Your task to perform on an android device: turn off javascript in the chrome app Image 0: 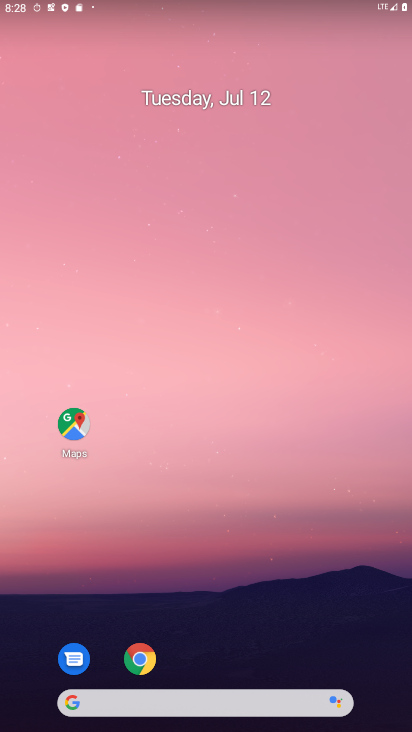
Step 0: drag from (362, 660) to (303, 26)
Your task to perform on an android device: turn off javascript in the chrome app Image 1: 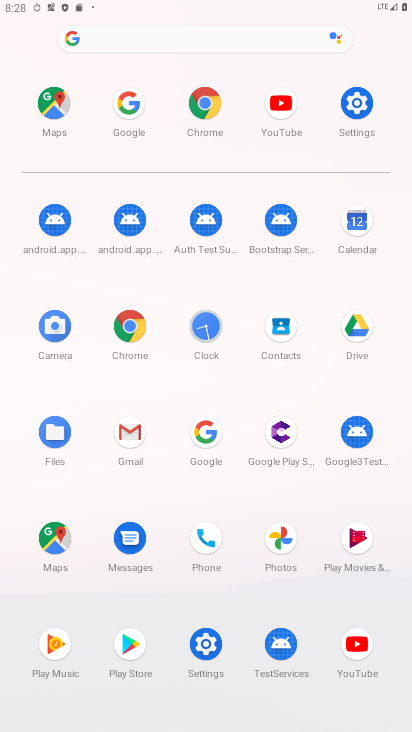
Step 1: click (209, 105)
Your task to perform on an android device: turn off javascript in the chrome app Image 2: 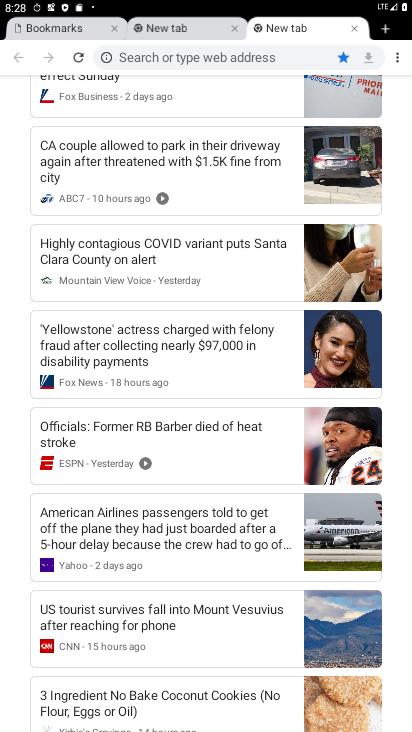
Step 2: click (399, 60)
Your task to perform on an android device: turn off javascript in the chrome app Image 3: 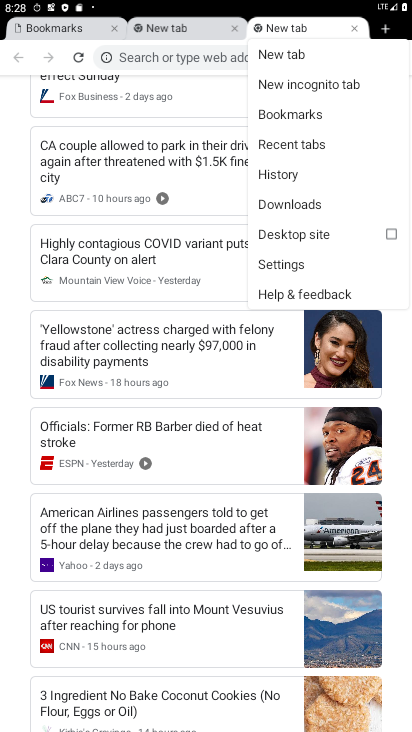
Step 3: click (284, 259)
Your task to perform on an android device: turn off javascript in the chrome app Image 4: 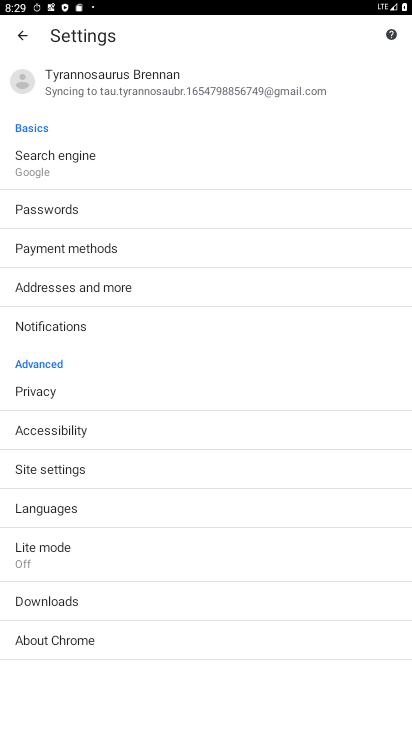
Step 4: click (78, 468)
Your task to perform on an android device: turn off javascript in the chrome app Image 5: 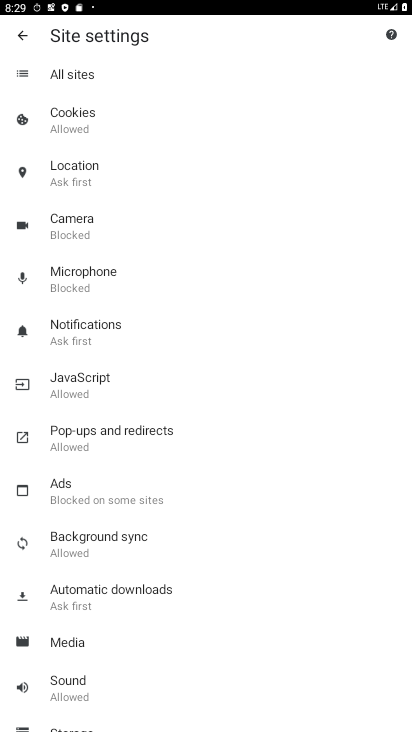
Step 5: click (77, 376)
Your task to perform on an android device: turn off javascript in the chrome app Image 6: 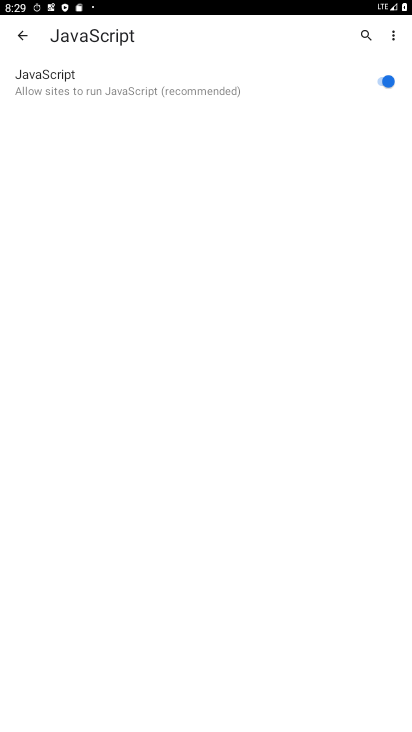
Step 6: click (381, 86)
Your task to perform on an android device: turn off javascript in the chrome app Image 7: 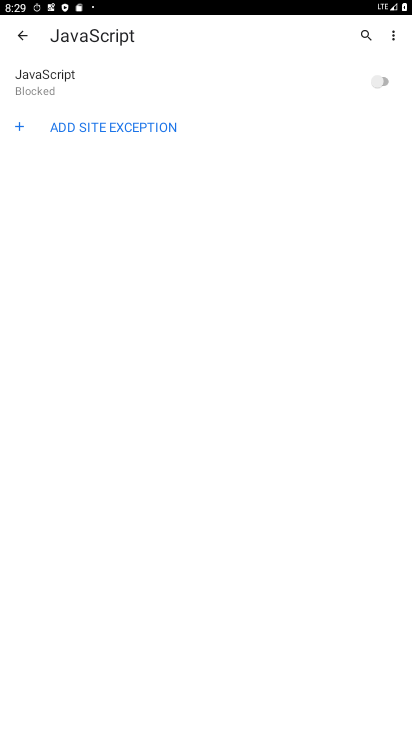
Step 7: task complete